Your task to perform on an android device: open app "DoorDash - Dasher" (install if not already installed) and go to login screen Image 0: 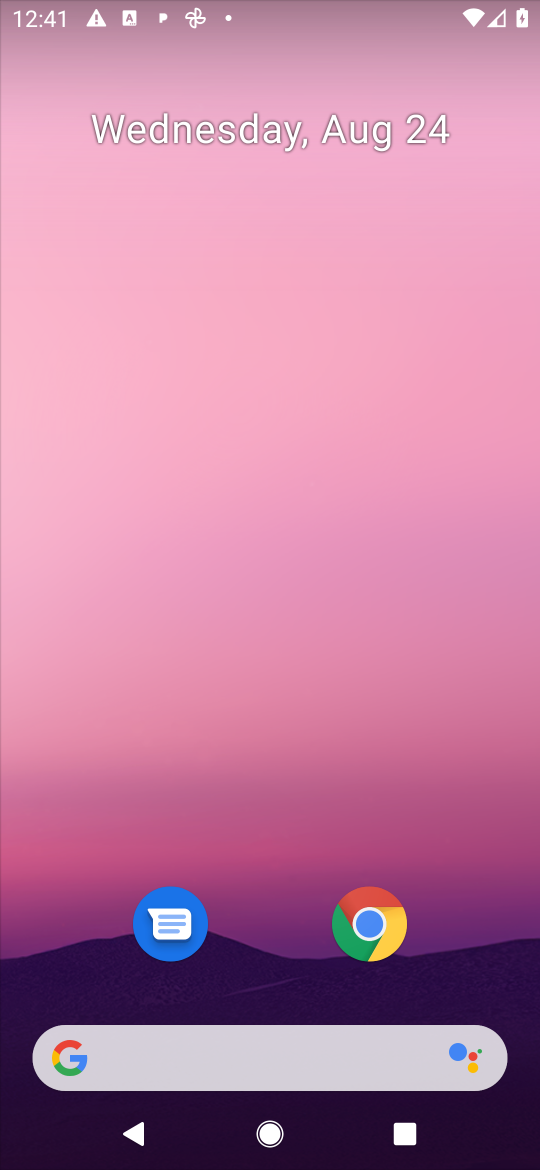
Step 0: press home button
Your task to perform on an android device: open app "DoorDash - Dasher" (install if not already installed) and go to login screen Image 1: 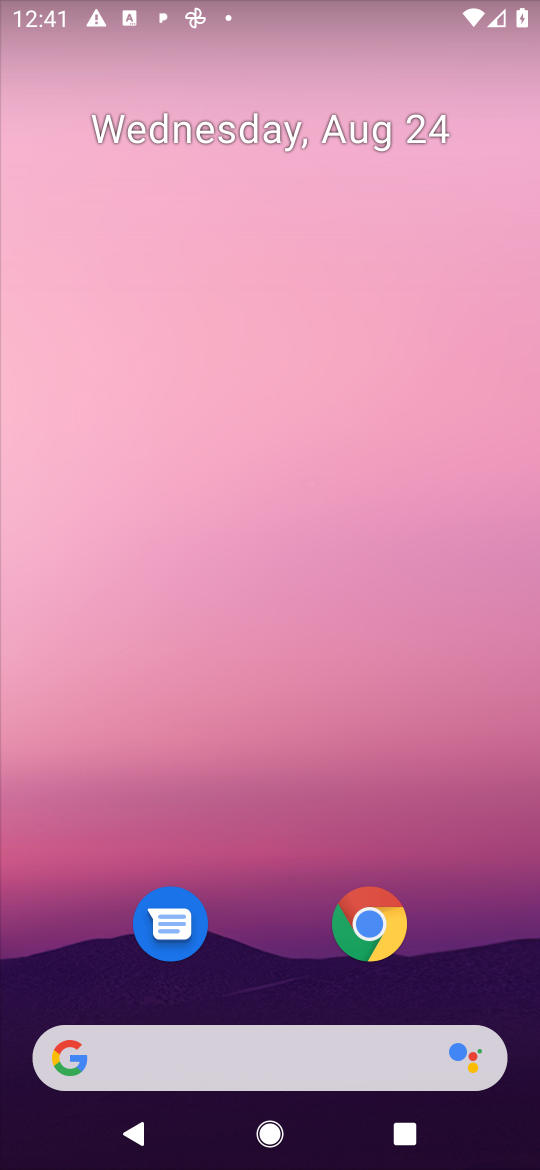
Step 1: drag from (477, 899) to (441, 165)
Your task to perform on an android device: open app "DoorDash - Dasher" (install if not already installed) and go to login screen Image 2: 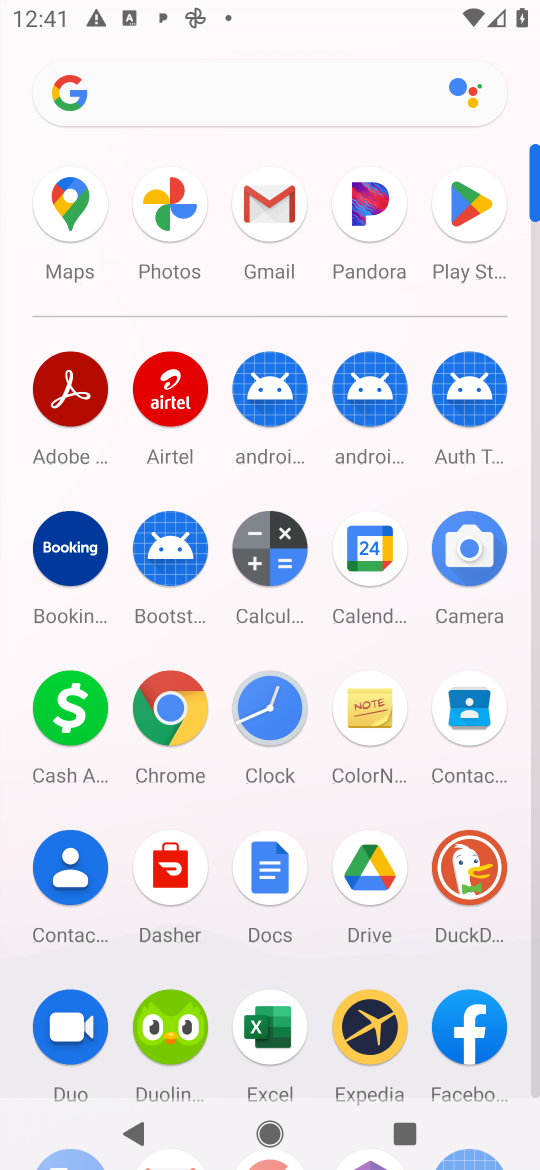
Step 2: click (468, 207)
Your task to perform on an android device: open app "DoorDash - Dasher" (install if not already installed) and go to login screen Image 3: 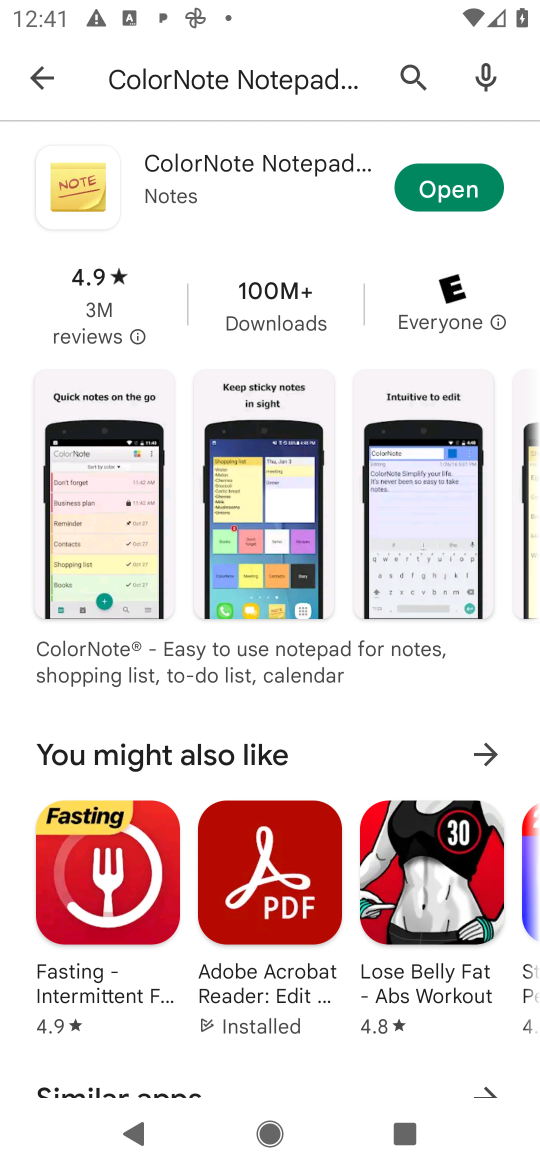
Step 3: press back button
Your task to perform on an android device: open app "DoorDash - Dasher" (install if not already installed) and go to login screen Image 4: 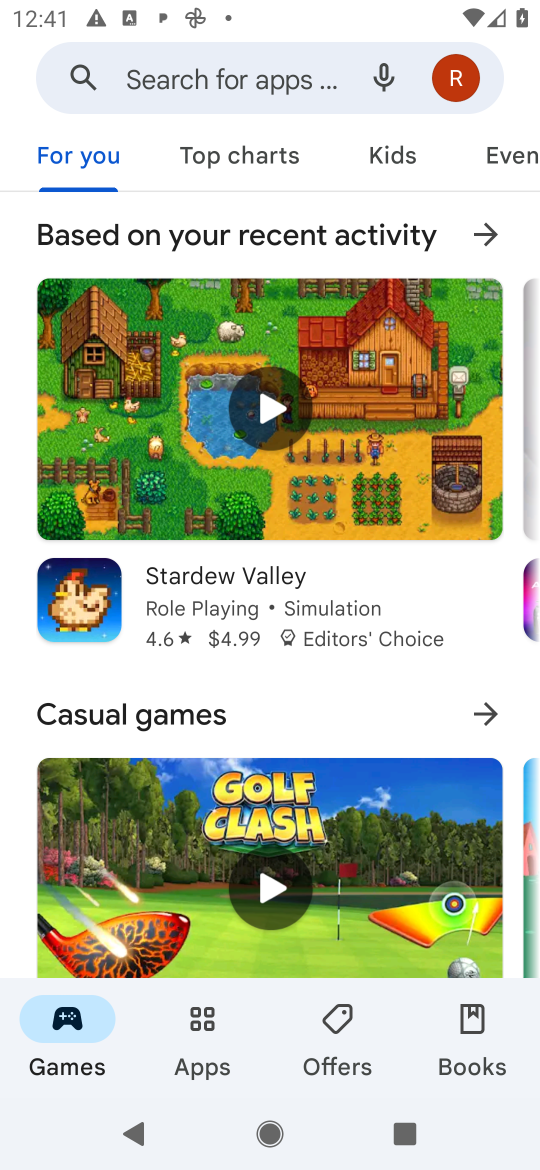
Step 4: click (234, 84)
Your task to perform on an android device: open app "DoorDash - Dasher" (install if not already installed) and go to login screen Image 5: 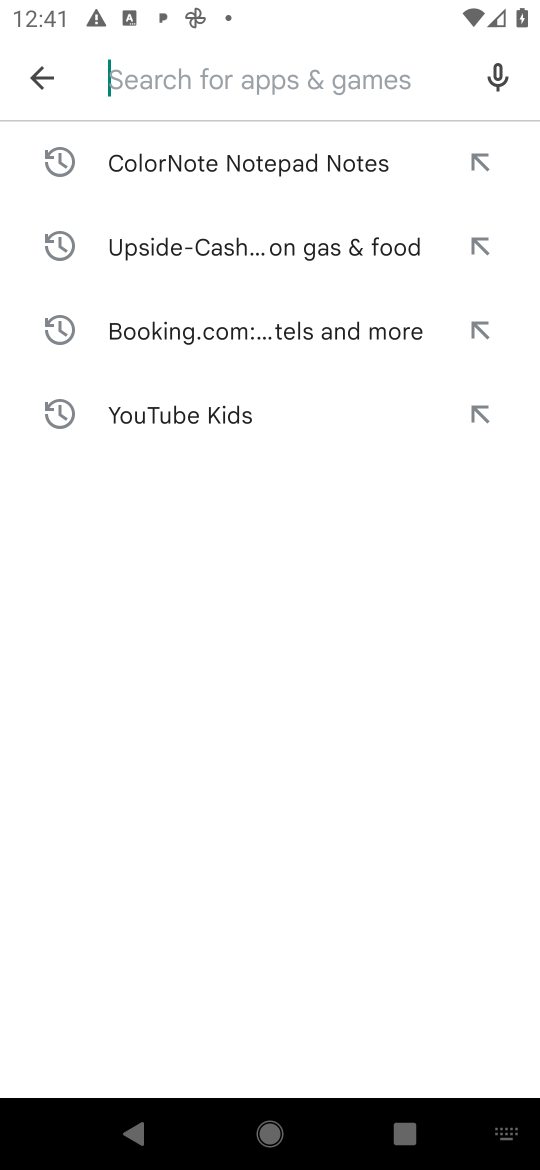
Step 5: type "DoorDash - Dasher"
Your task to perform on an android device: open app "DoorDash - Dasher" (install if not already installed) and go to login screen Image 6: 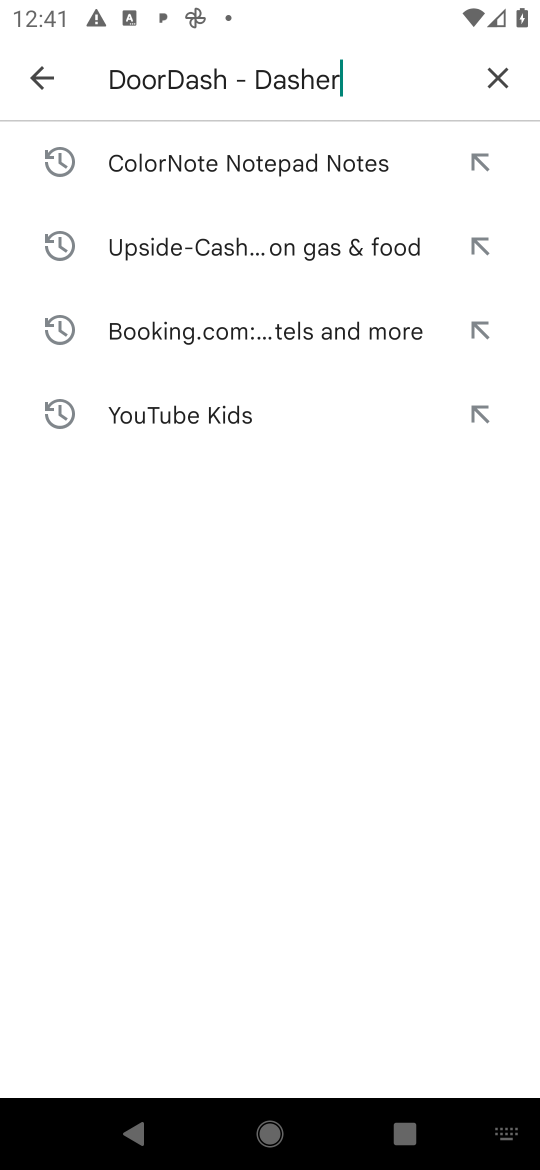
Step 6: press enter
Your task to perform on an android device: open app "DoorDash - Dasher" (install if not already installed) and go to login screen Image 7: 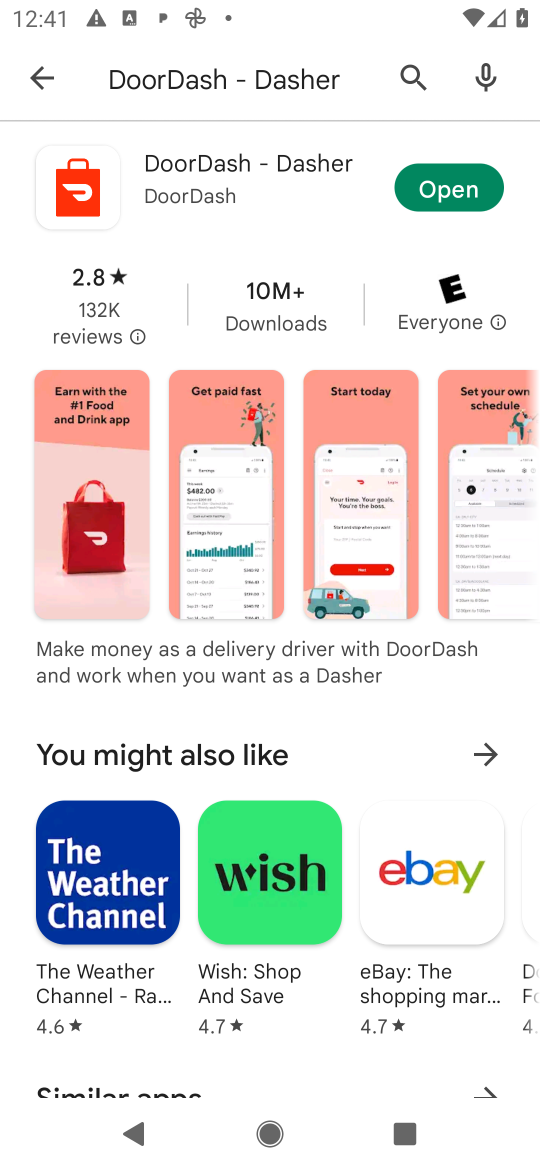
Step 7: click (458, 189)
Your task to perform on an android device: open app "DoorDash - Dasher" (install if not already installed) and go to login screen Image 8: 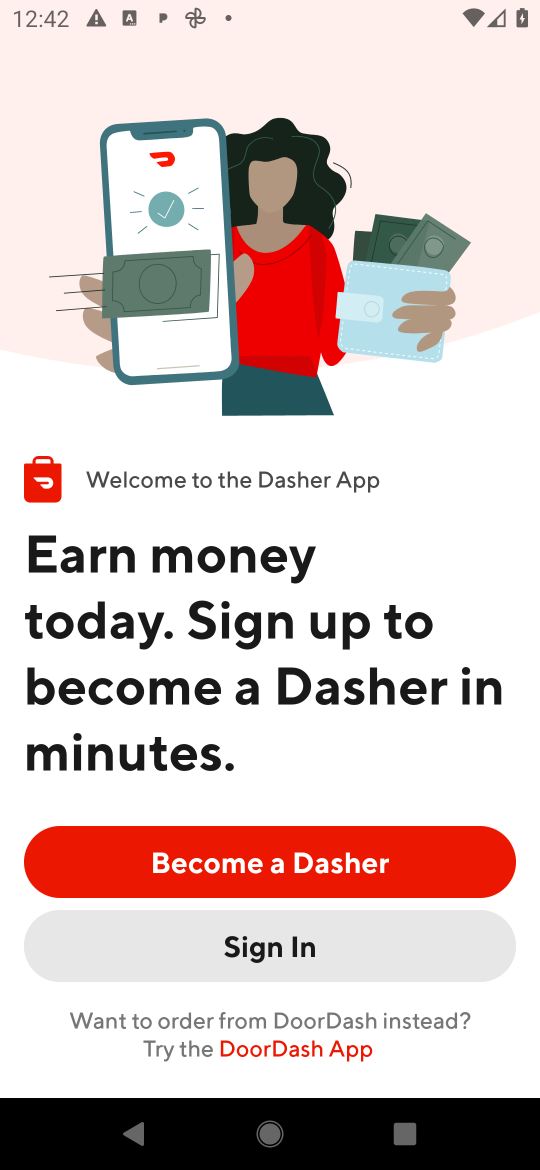
Step 8: click (324, 937)
Your task to perform on an android device: open app "DoorDash - Dasher" (install if not already installed) and go to login screen Image 9: 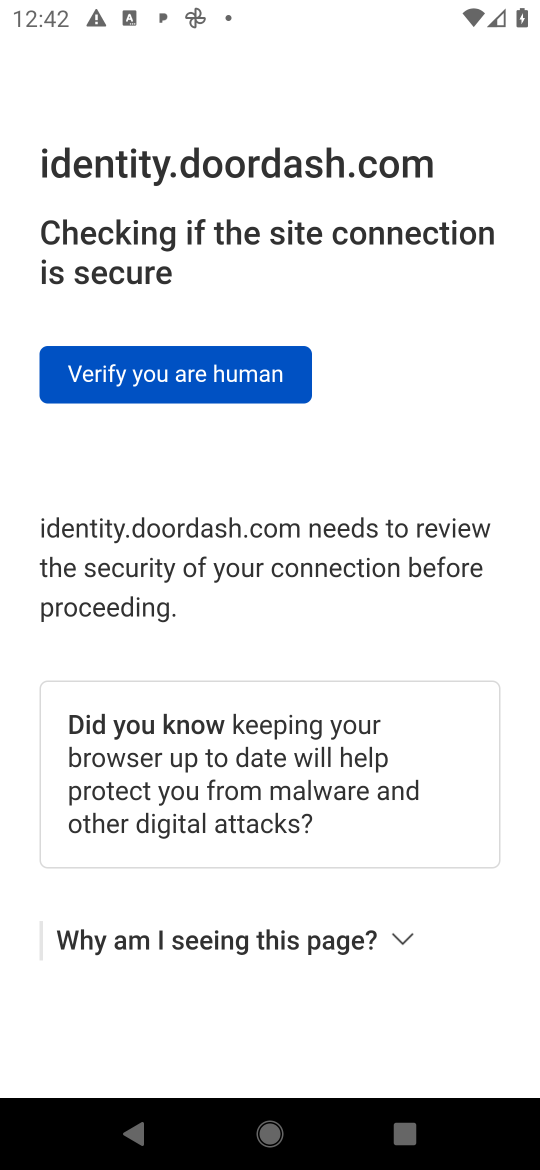
Step 9: task complete